Your task to perform on an android device: View the shopping cart on ebay. Add "razer blade" to the cart on ebay, then select checkout. Image 0: 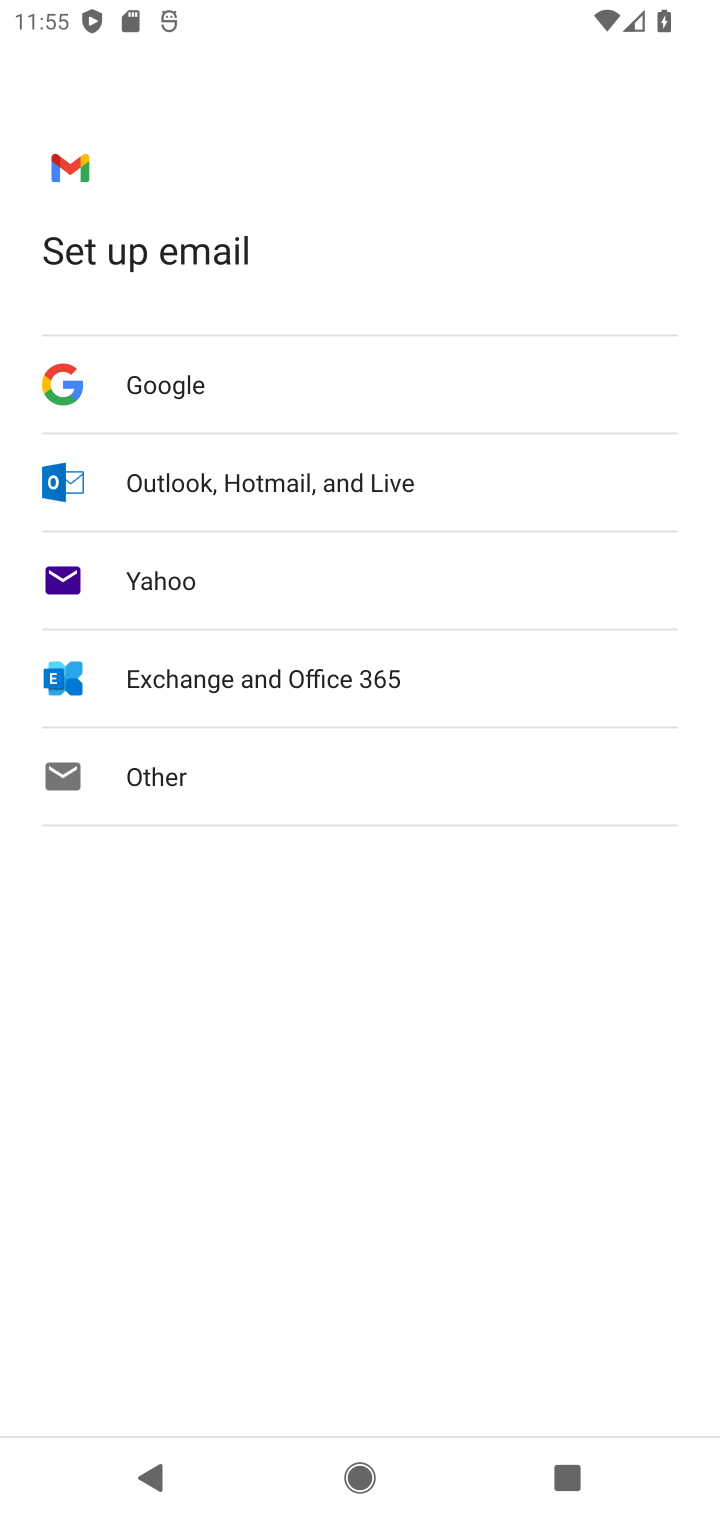
Step 0: press home button
Your task to perform on an android device: View the shopping cart on ebay. Add "razer blade" to the cart on ebay, then select checkout. Image 1: 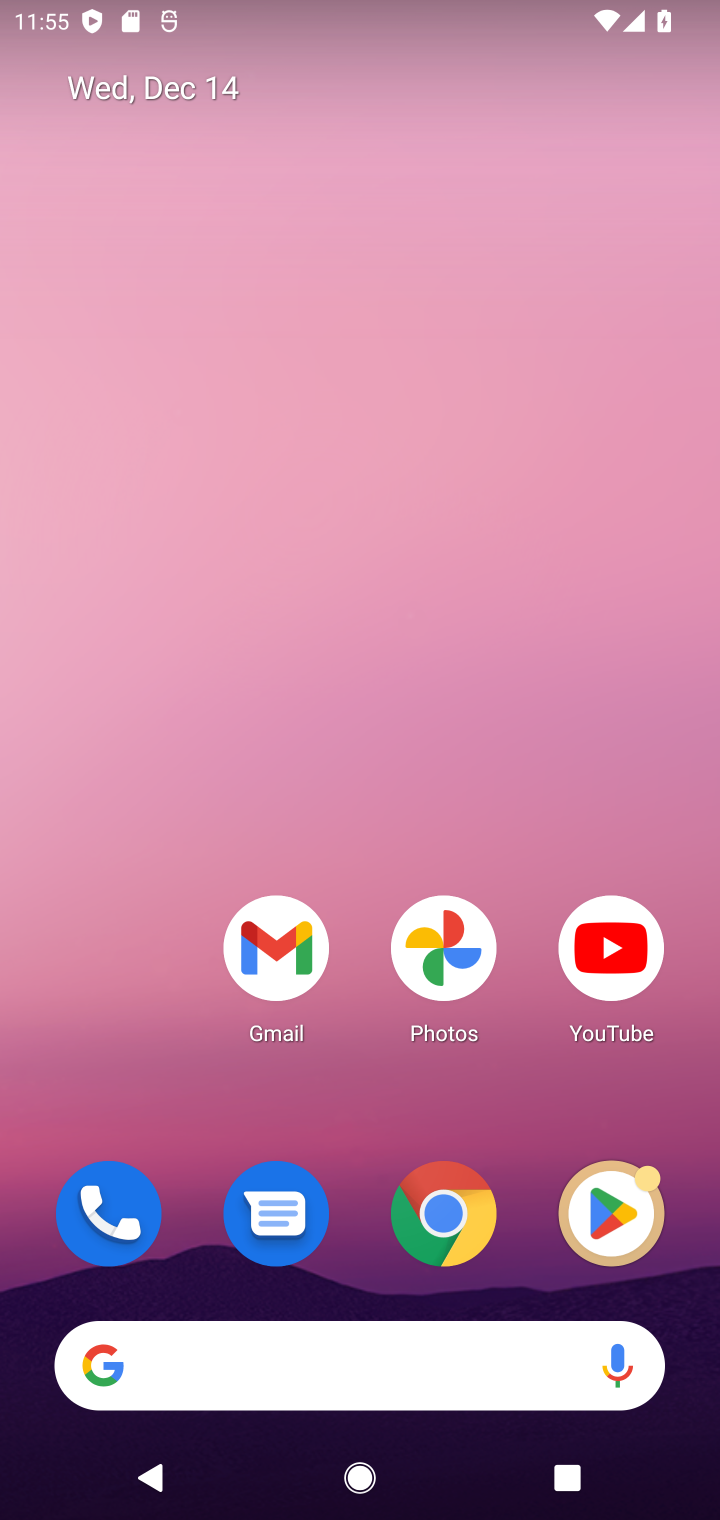
Step 1: click (444, 1236)
Your task to perform on an android device: View the shopping cart on ebay. Add "razer blade" to the cart on ebay, then select checkout. Image 2: 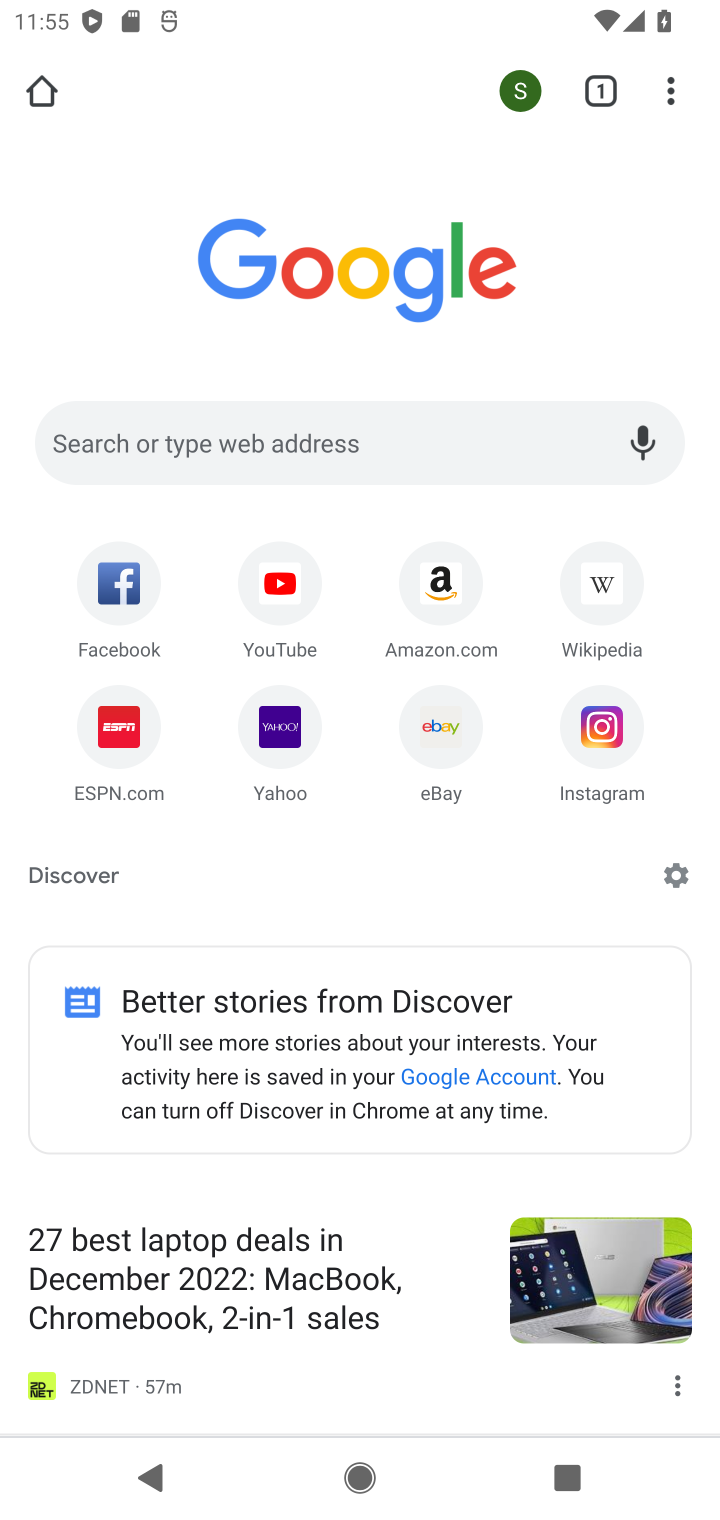
Step 2: click (260, 454)
Your task to perform on an android device: View the shopping cart on ebay. Add "razer blade" to the cart on ebay, then select checkout. Image 3: 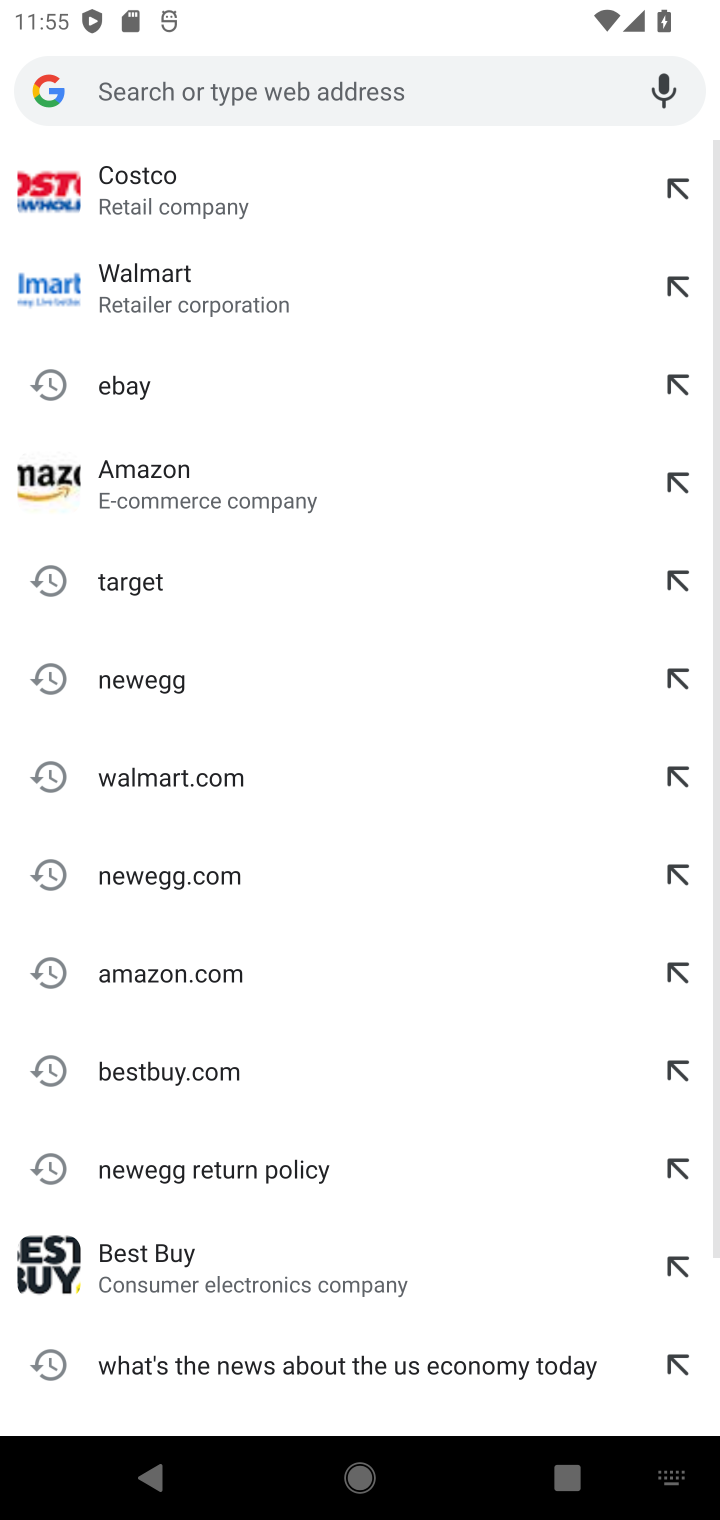
Step 3: click (256, 380)
Your task to perform on an android device: View the shopping cart on ebay. Add "razer blade" to the cart on ebay, then select checkout. Image 4: 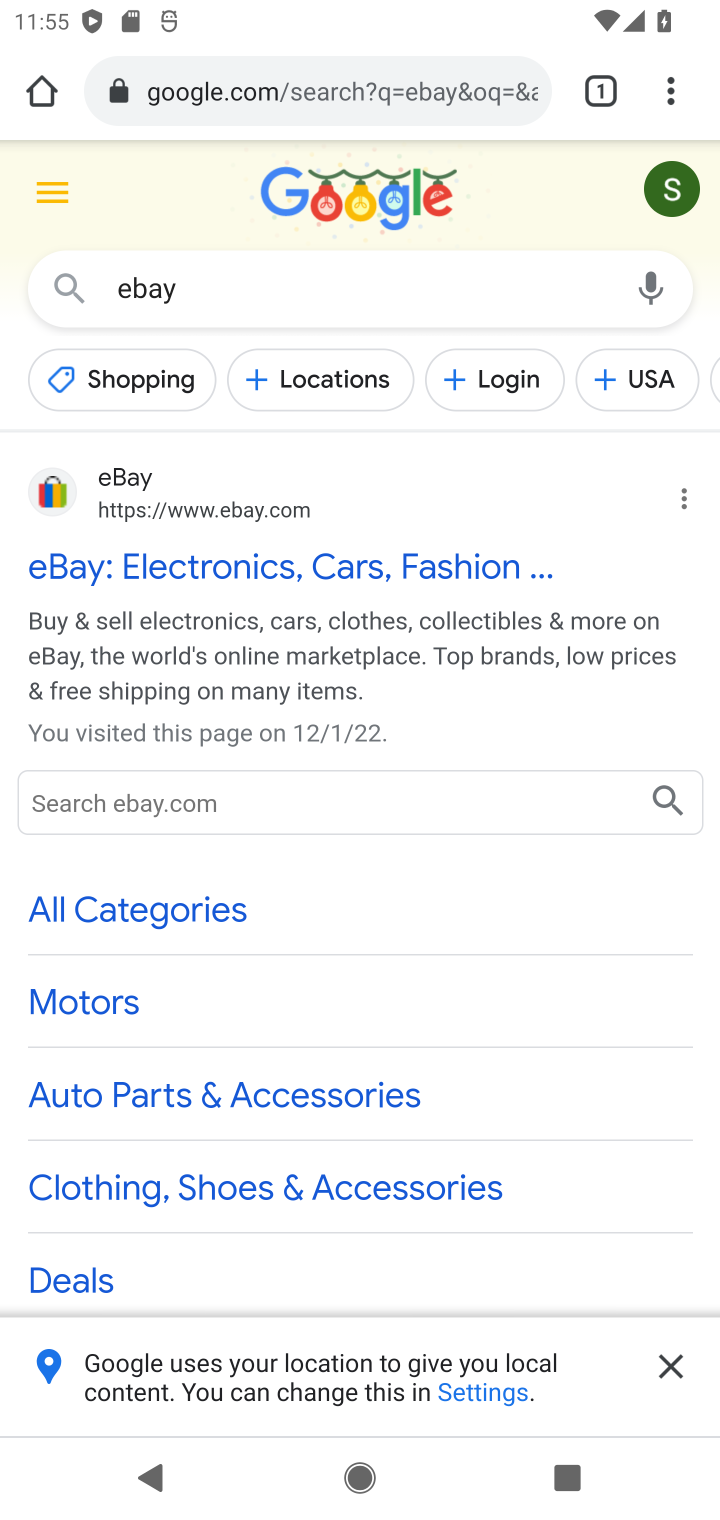
Step 4: click (211, 557)
Your task to perform on an android device: View the shopping cart on ebay. Add "razer blade" to the cart on ebay, then select checkout. Image 5: 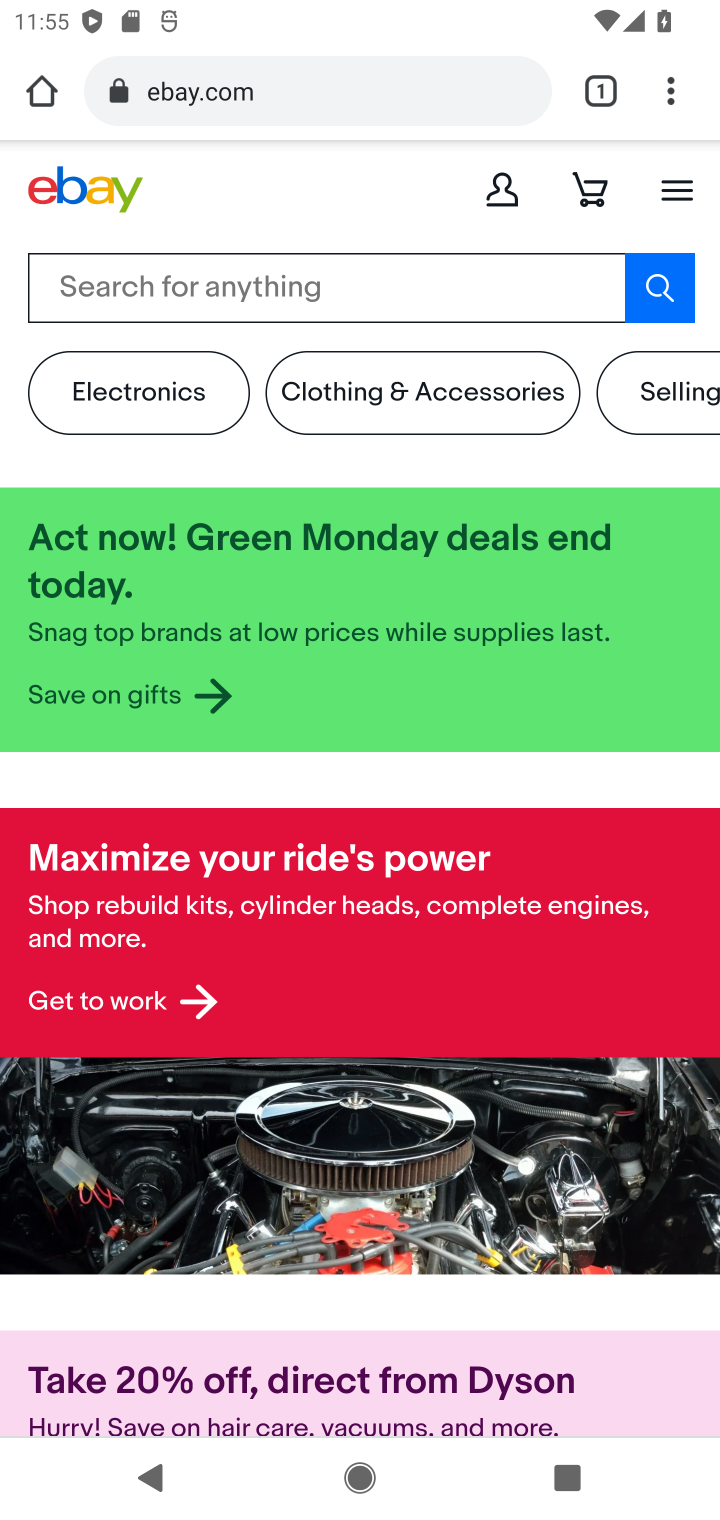
Step 5: click (340, 288)
Your task to perform on an android device: View the shopping cart on ebay. Add "razer blade" to the cart on ebay, then select checkout. Image 6: 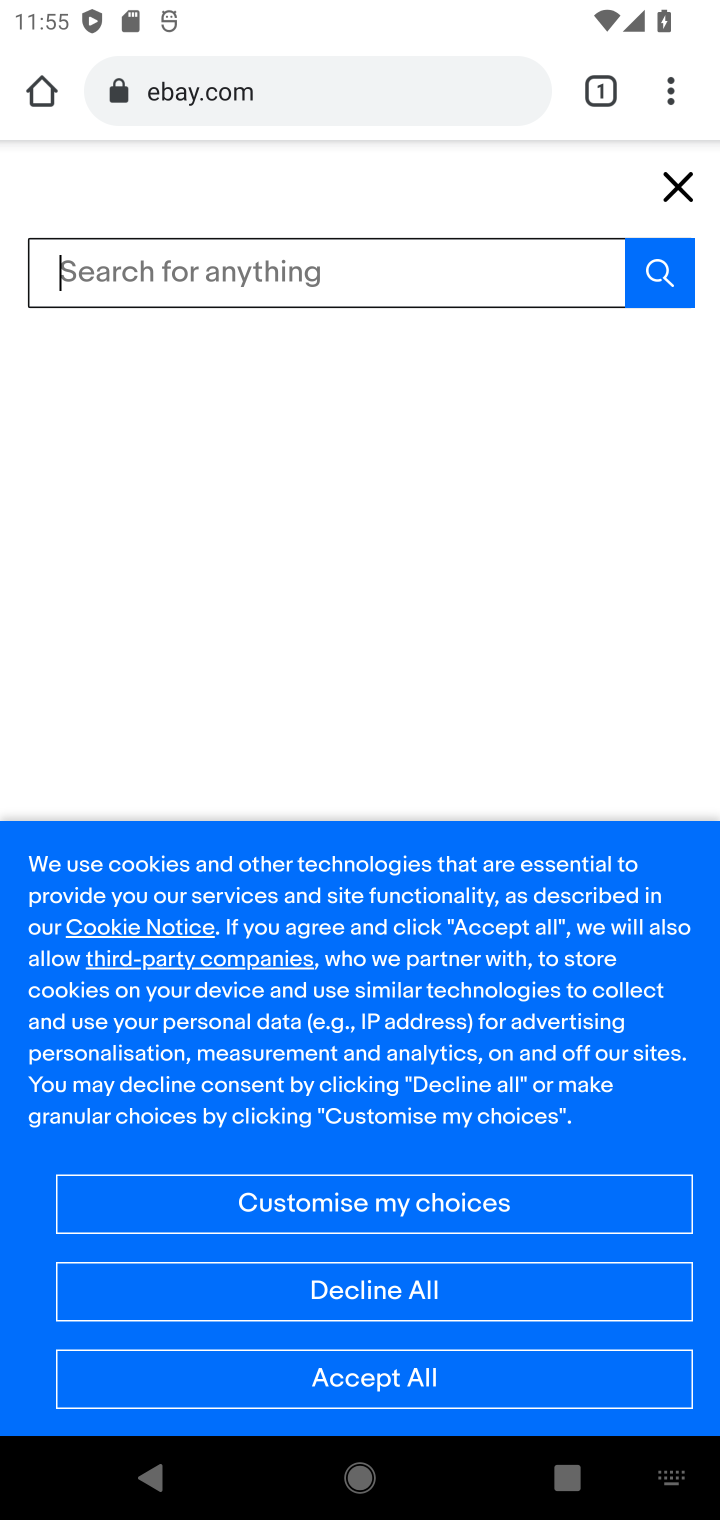
Step 6: type "razer blade"
Your task to perform on an android device: View the shopping cart on ebay. Add "razer blade" to the cart on ebay, then select checkout. Image 7: 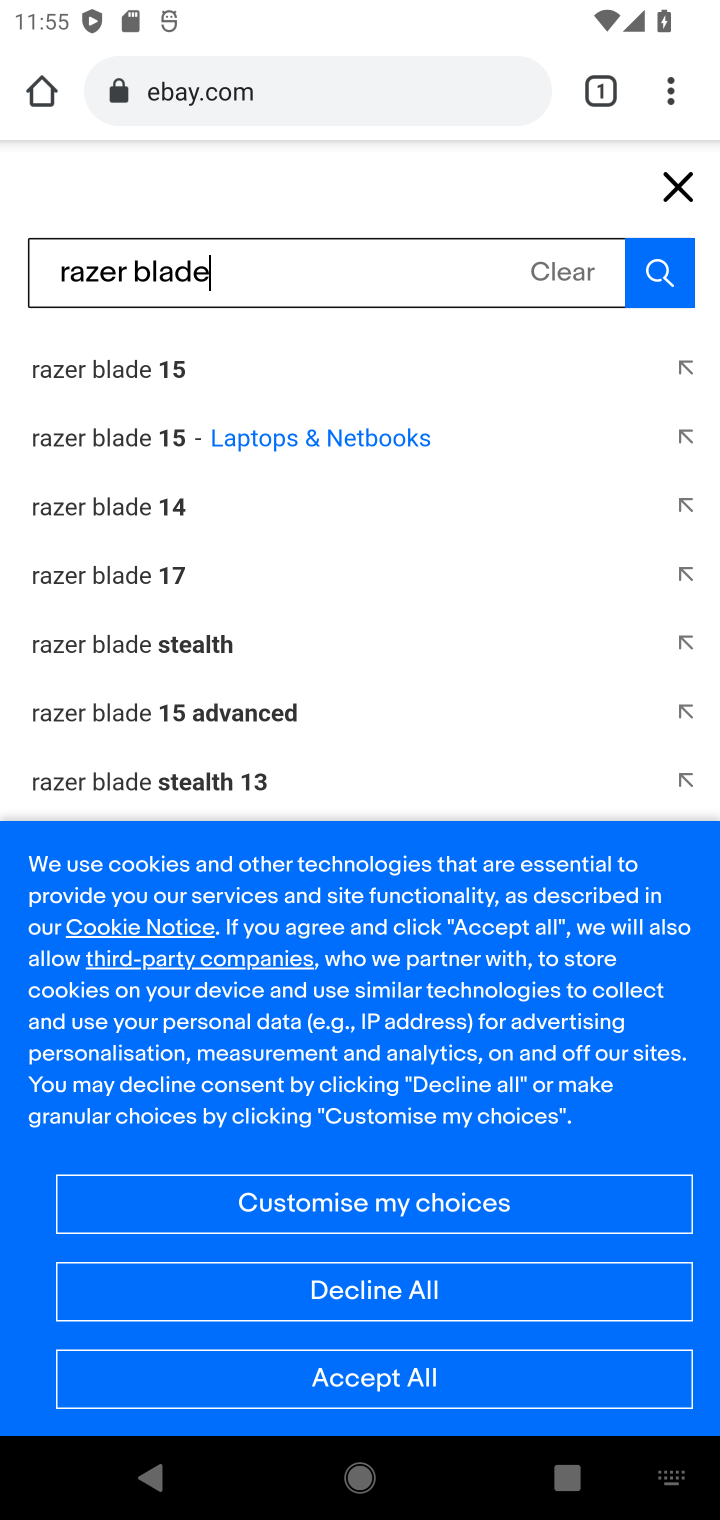
Step 7: click (669, 288)
Your task to perform on an android device: View the shopping cart on ebay. Add "razer blade" to the cart on ebay, then select checkout. Image 8: 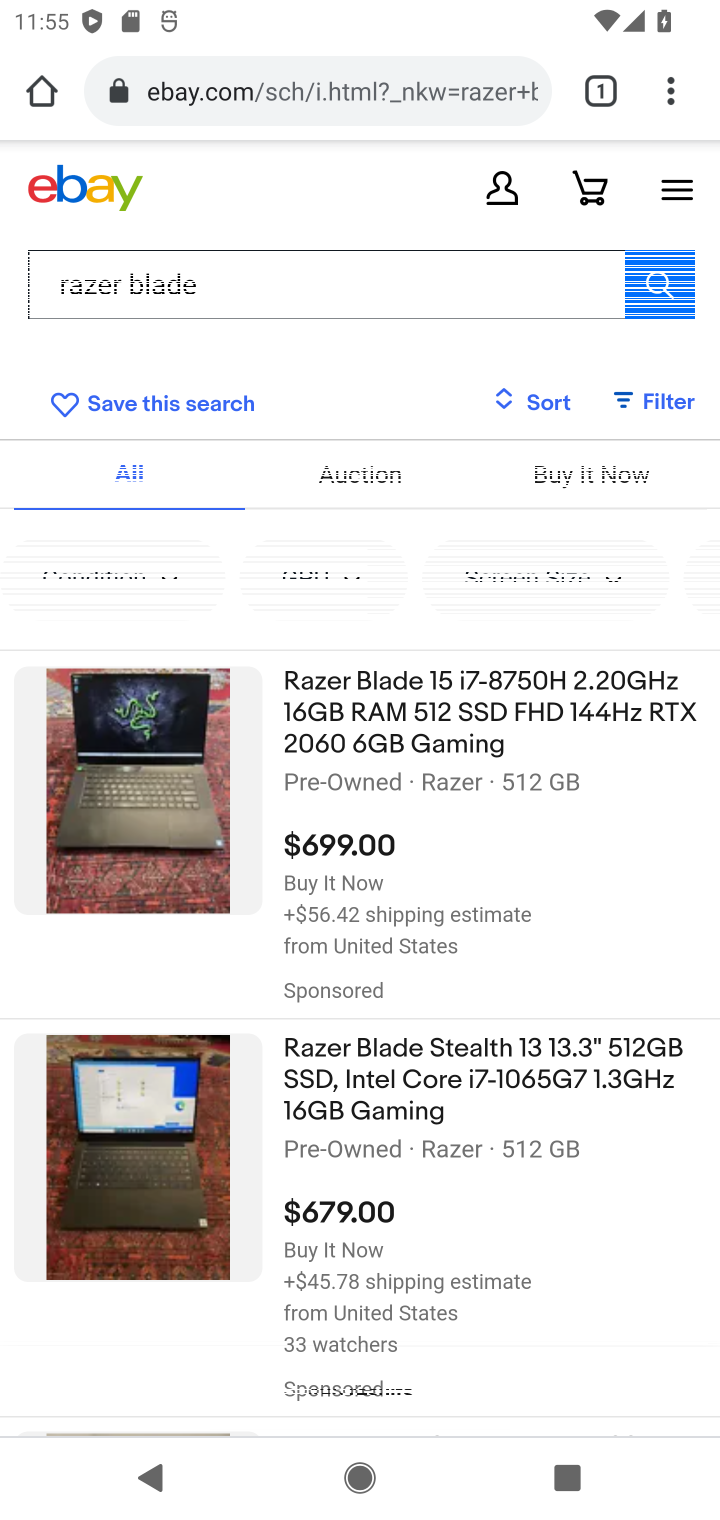
Step 8: click (318, 719)
Your task to perform on an android device: View the shopping cart on ebay. Add "razer blade" to the cart on ebay, then select checkout. Image 9: 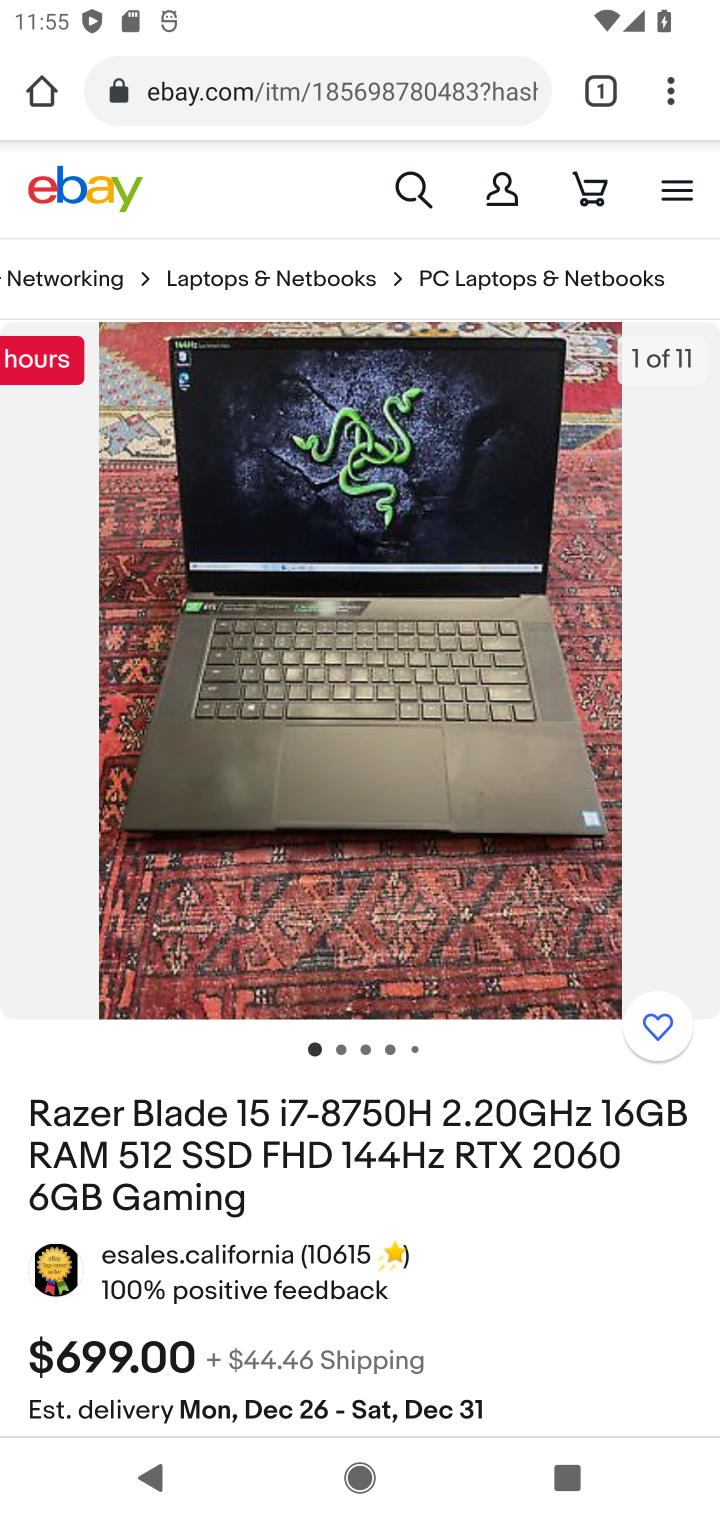
Step 9: drag from (339, 1218) to (333, 468)
Your task to perform on an android device: View the shopping cart on ebay. Add "razer blade" to the cart on ebay, then select checkout. Image 10: 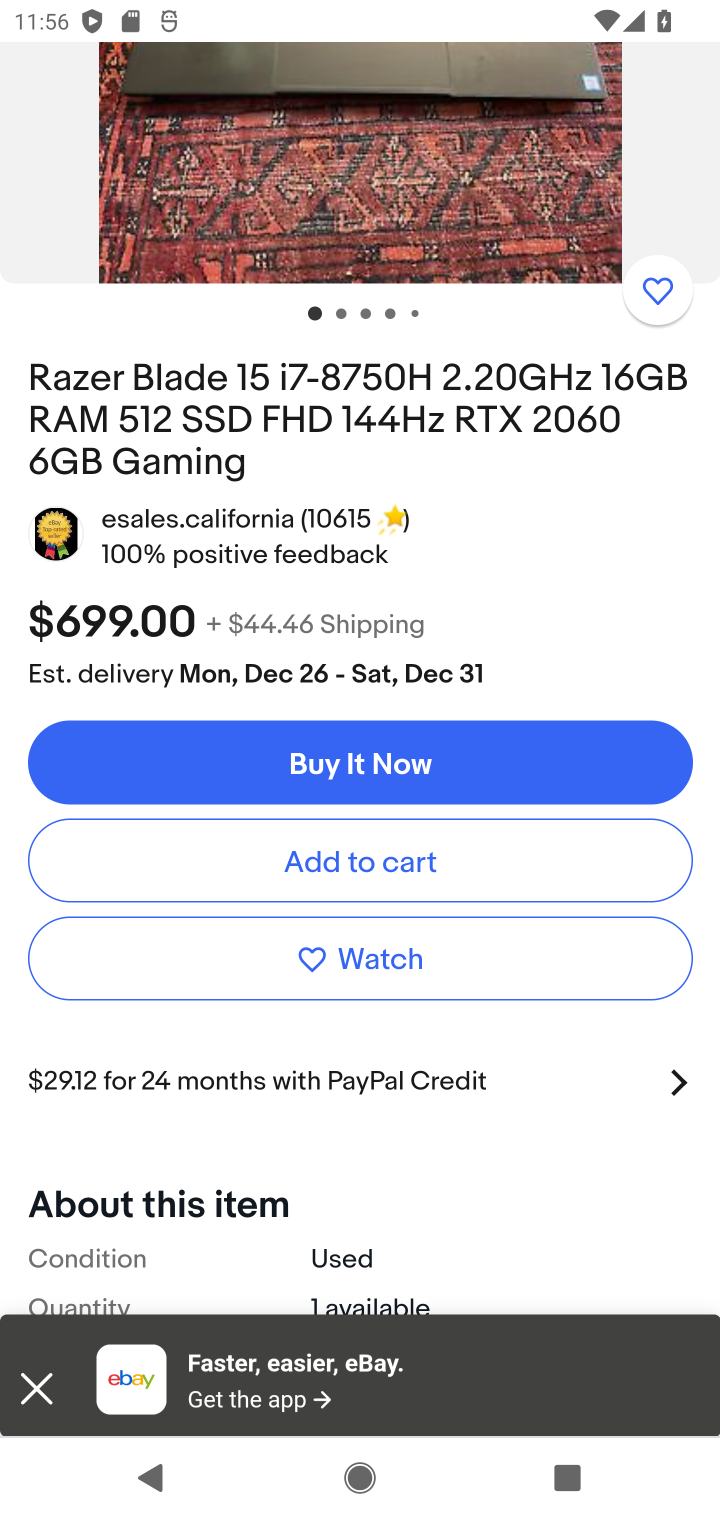
Step 10: click (323, 879)
Your task to perform on an android device: View the shopping cart on ebay. Add "razer blade" to the cart on ebay, then select checkout. Image 11: 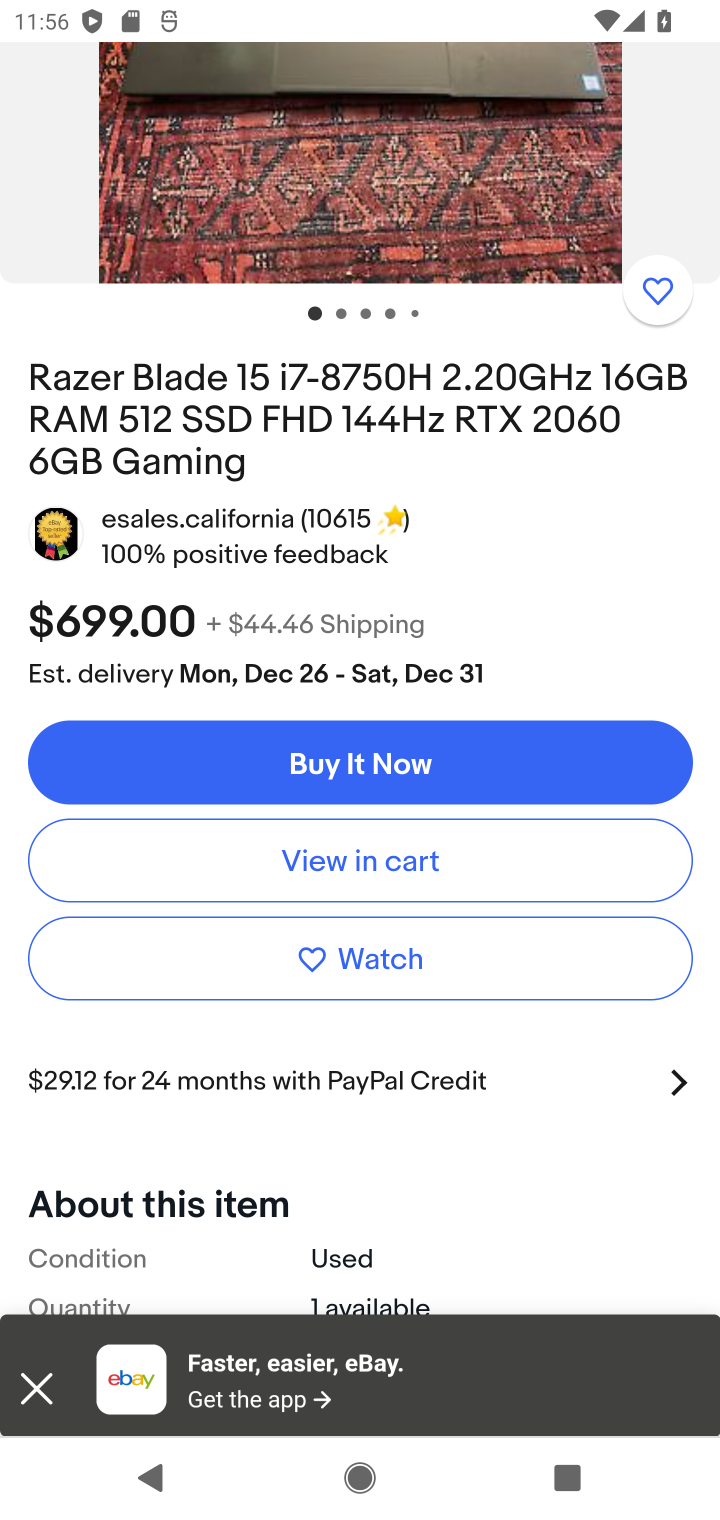
Step 11: task complete